Your task to perform on an android device: Open the stopwatch Image 0: 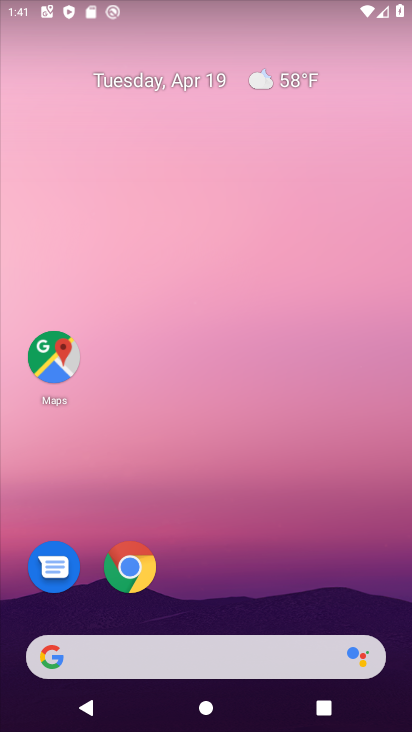
Step 0: click (196, 108)
Your task to perform on an android device: Open the stopwatch Image 1: 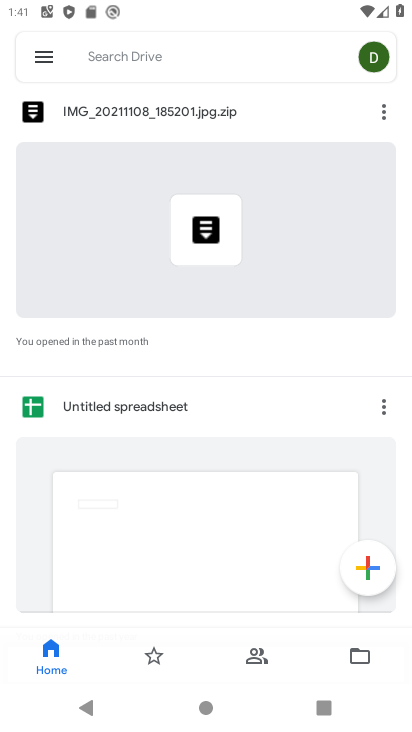
Step 1: press home button
Your task to perform on an android device: Open the stopwatch Image 2: 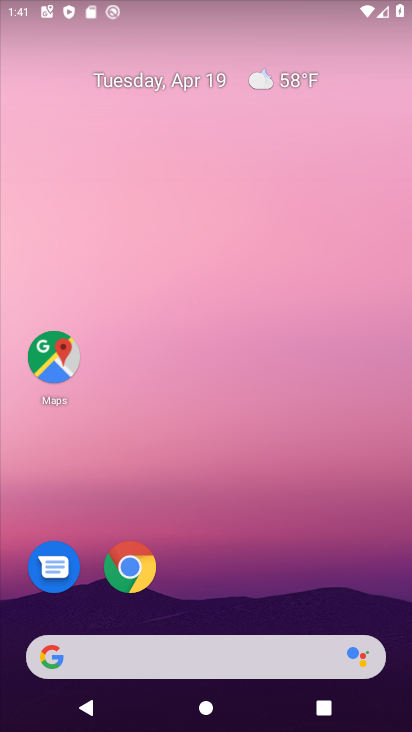
Step 2: drag from (201, 556) to (207, 262)
Your task to perform on an android device: Open the stopwatch Image 3: 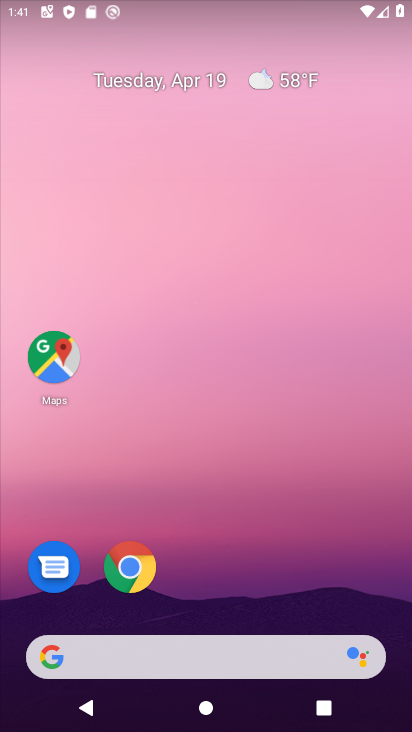
Step 3: drag from (196, 553) to (209, 146)
Your task to perform on an android device: Open the stopwatch Image 4: 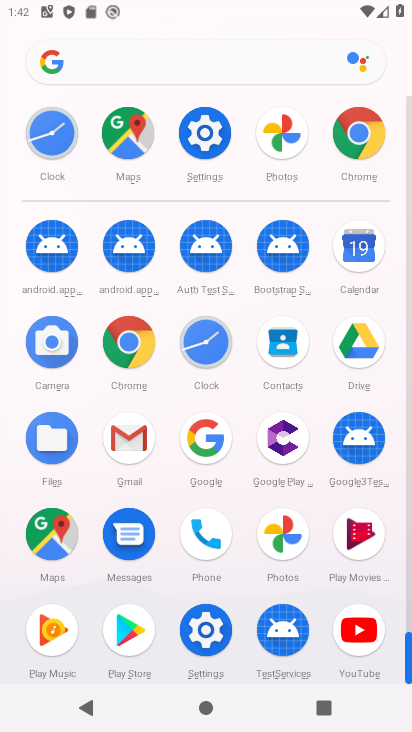
Step 4: click (222, 342)
Your task to perform on an android device: Open the stopwatch Image 5: 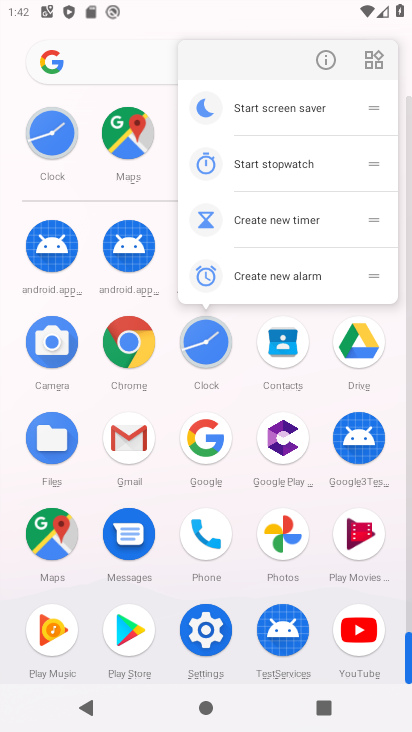
Step 5: click (205, 349)
Your task to perform on an android device: Open the stopwatch Image 6: 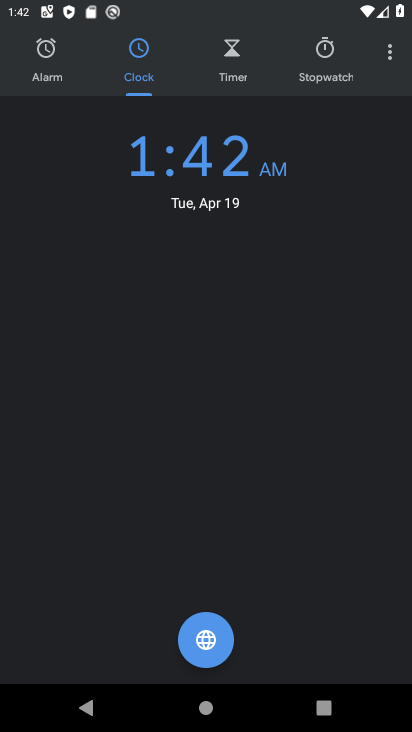
Step 6: click (342, 83)
Your task to perform on an android device: Open the stopwatch Image 7: 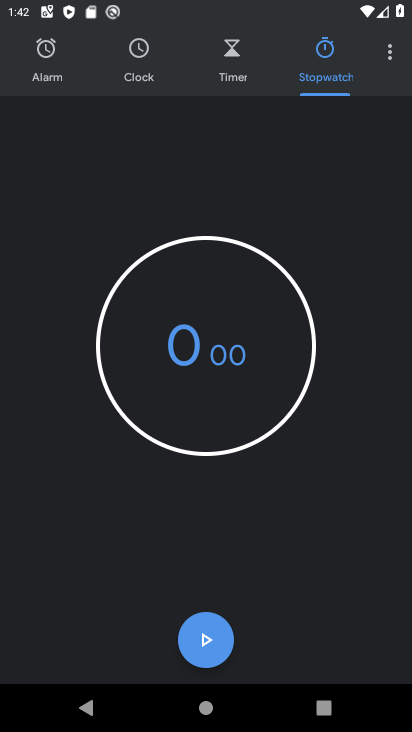
Step 7: task complete